Your task to perform on an android device: Open accessibility settings Image 0: 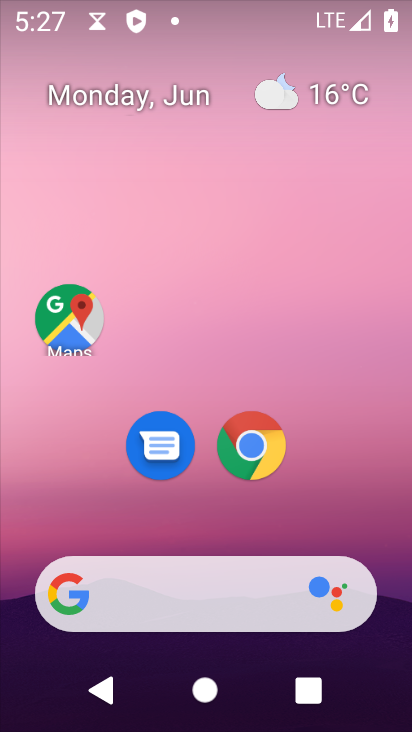
Step 0: drag from (345, 472) to (302, 22)
Your task to perform on an android device: Open accessibility settings Image 1: 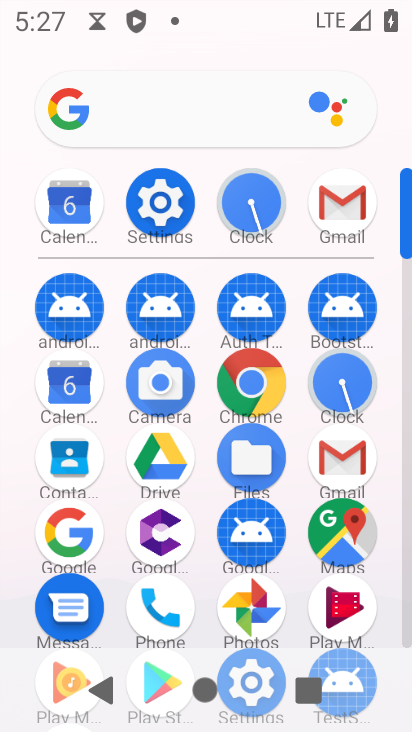
Step 1: click (159, 201)
Your task to perform on an android device: Open accessibility settings Image 2: 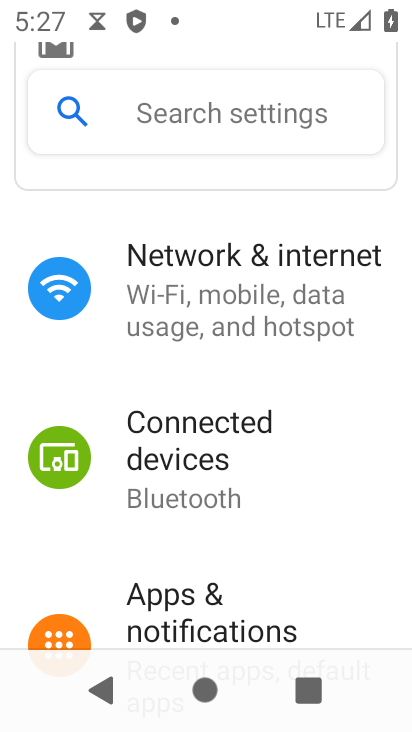
Step 2: drag from (268, 576) to (225, 171)
Your task to perform on an android device: Open accessibility settings Image 3: 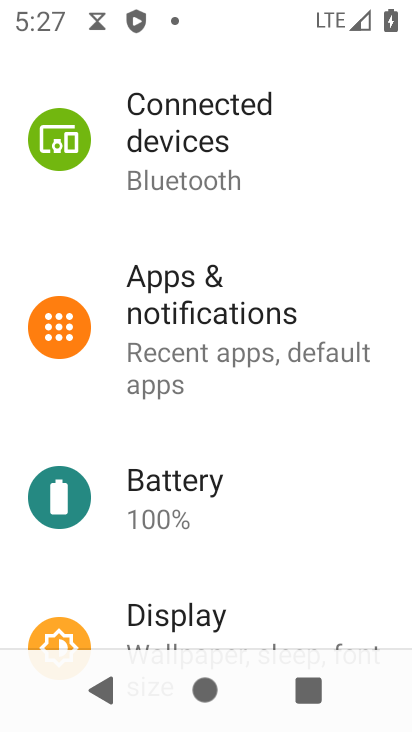
Step 3: drag from (242, 583) to (335, 126)
Your task to perform on an android device: Open accessibility settings Image 4: 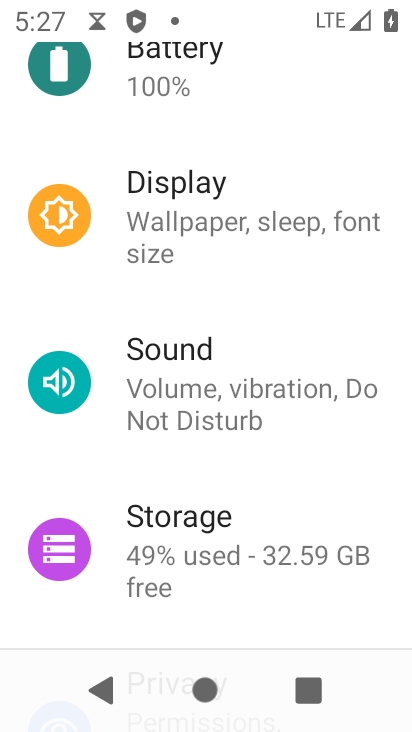
Step 4: drag from (269, 511) to (382, 56)
Your task to perform on an android device: Open accessibility settings Image 5: 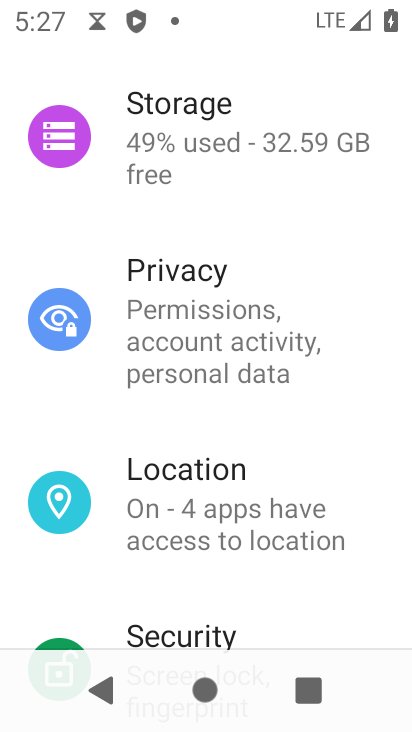
Step 5: drag from (241, 592) to (352, 159)
Your task to perform on an android device: Open accessibility settings Image 6: 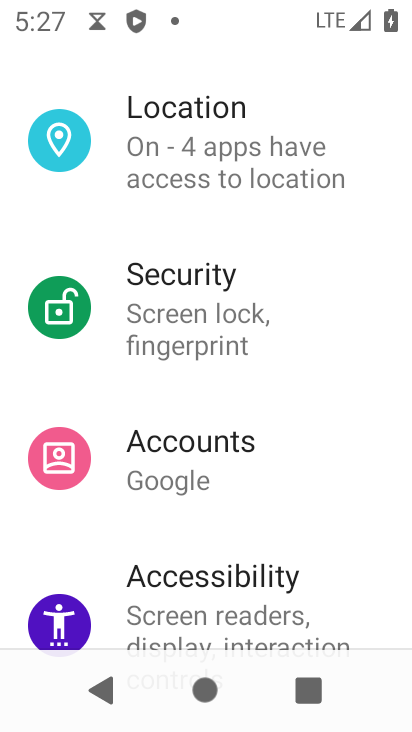
Step 6: click (240, 572)
Your task to perform on an android device: Open accessibility settings Image 7: 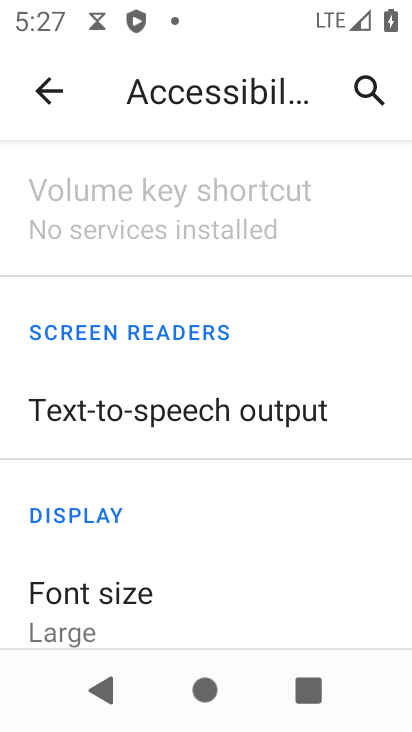
Step 7: task complete